Your task to perform on an android device: refresh tabs in the chrome app Image 0: 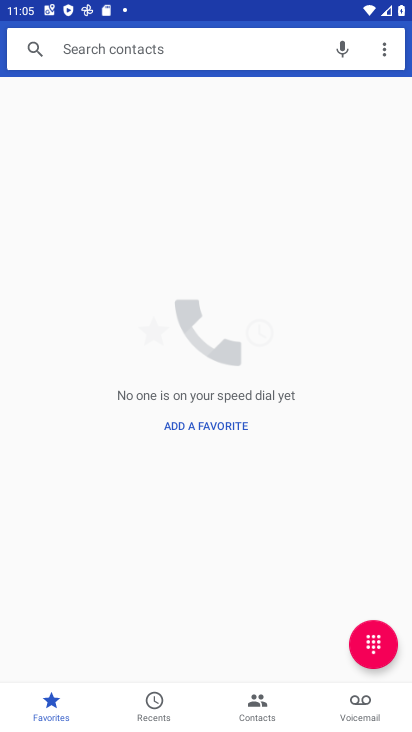
Step 0: press home button
Your task to perform on an android device: refresh tabs in the chrome app Image 1: 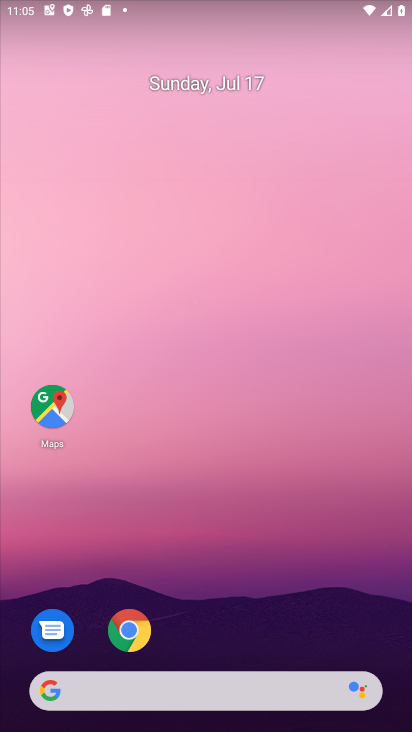
Step 1: click (137, 640)
Your task to perform on an android device: refresh tabs in the chrome app Image 2: 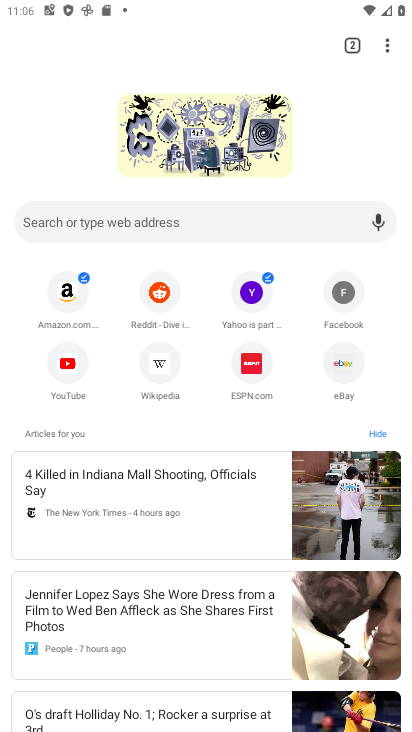
Step 2: click (382, 47)
Your task to perform on an android device: refresh tabs in the chrome app Image 3: 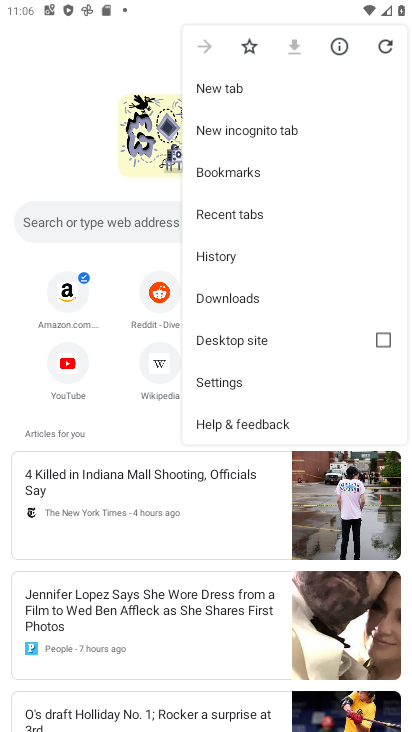
Step 3: click (378, 52)
Your task to perform on an android device: refresh tabs in the chrome app Image 4: 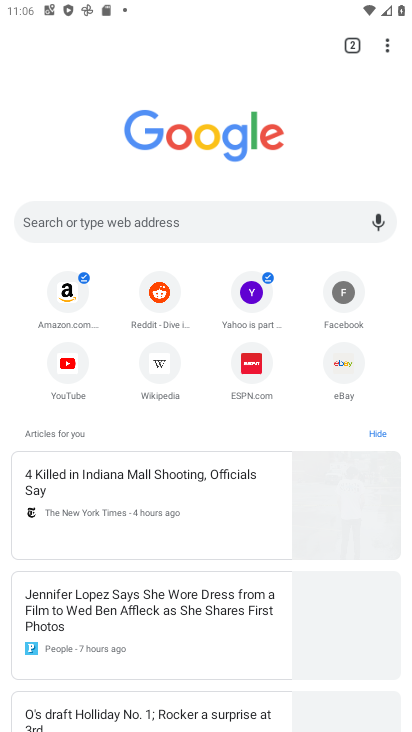
Step 4: task complete